Your task to perform on an android device: Open the Play Movies app and select the watchlist tab. Image 0: 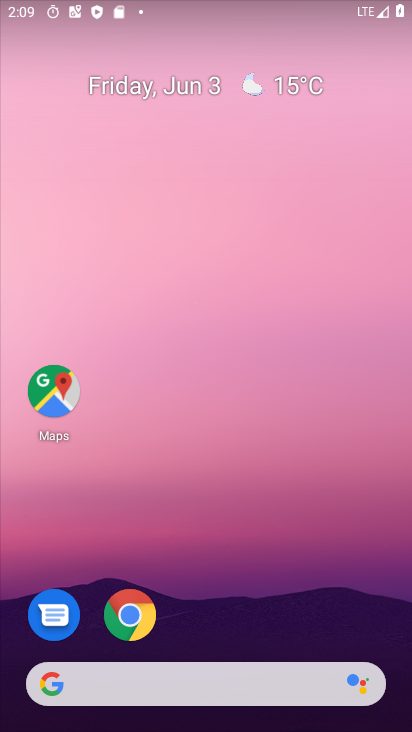
Step 0: drag from (169, 594) to (212, 137)
Your task to perform on an android device: Open the Play Movies app and select the watchlist tab. Image 1: 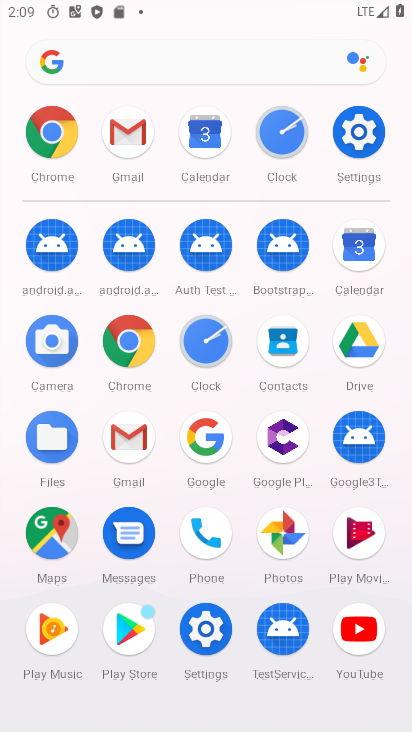
Step 1: click (346, 535)
Your task to perform on an android device: Open the Play Movies app and select the watchlist tab. Image 2: 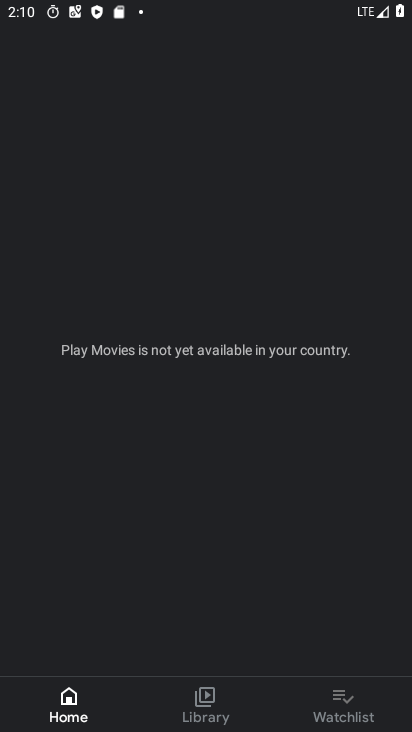
Step 2: click (343, 687)
Your task to perform on an android device: Open the Play Movies app and select the watchlist tab. Image 3: 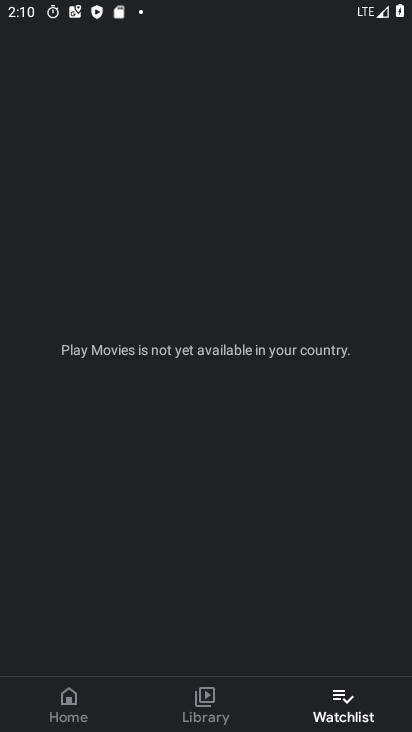
Step 3: task complete